Your task to perform on an android device: check google app version Image 0: 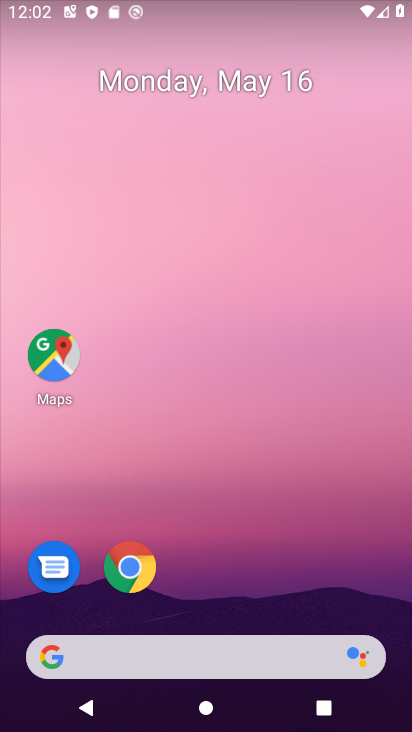
Step 0: drag from (275, 584) to (317, 121)
Your task to perform on an android device: check google app version Image 1: 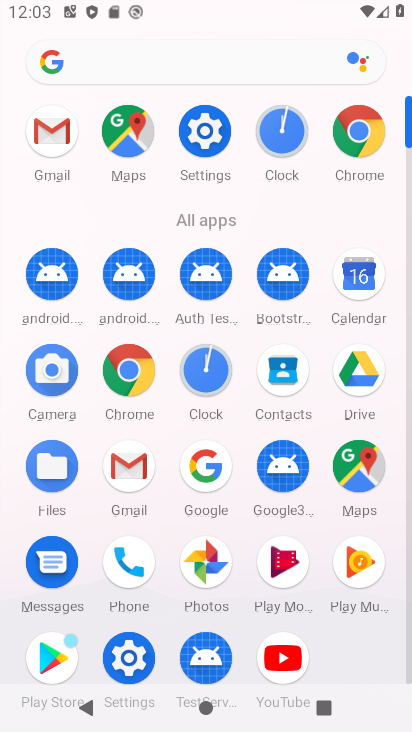
Step 1: click (201, 476)
Your task to perform on an android device: check google app version Image 2: 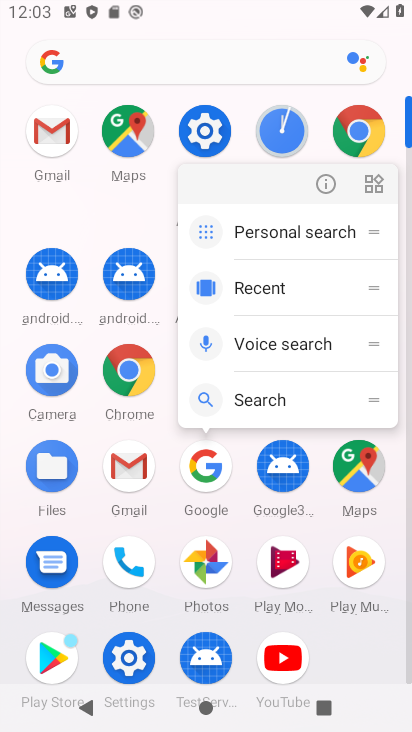
Step 2: click (323, 184)
Your task to perform on an android device: check google app version Image 3: 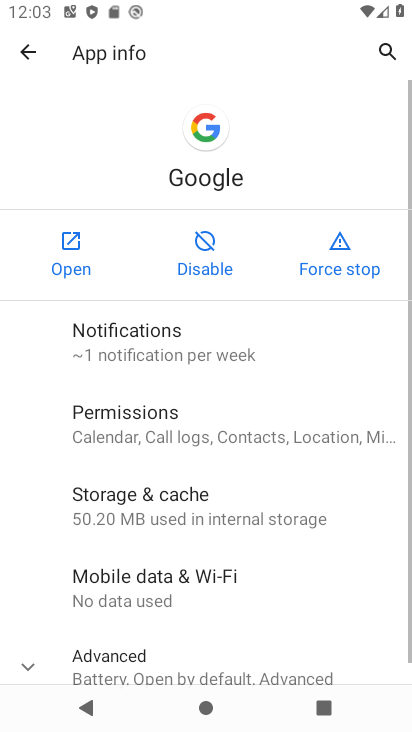
Step 3: drag from (223, 632) to (319, 105)
Your task to perform on an android device: check google app version Image 4: 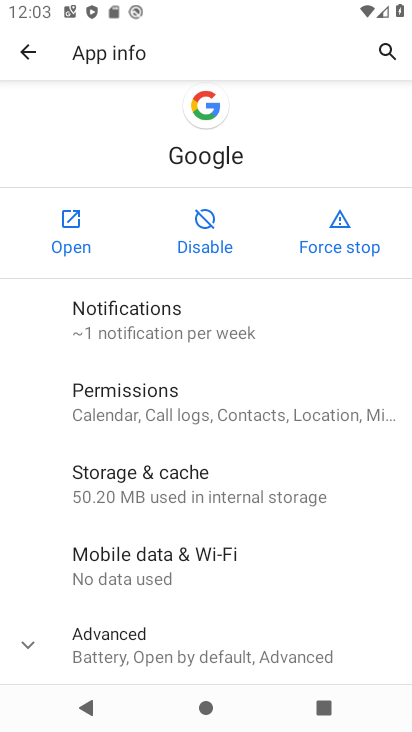
Step 4: click (99, 629)
Your task to perform on an android device: check google app version Image 5: 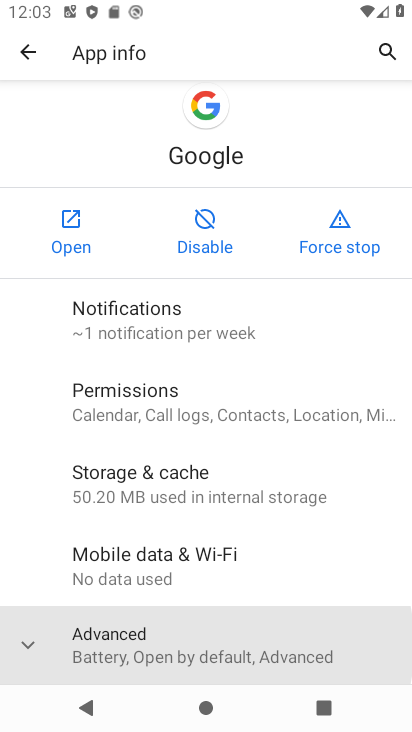
Step 5: click (99, 629)
Your task to perform on an android device: check google app version Image 6: 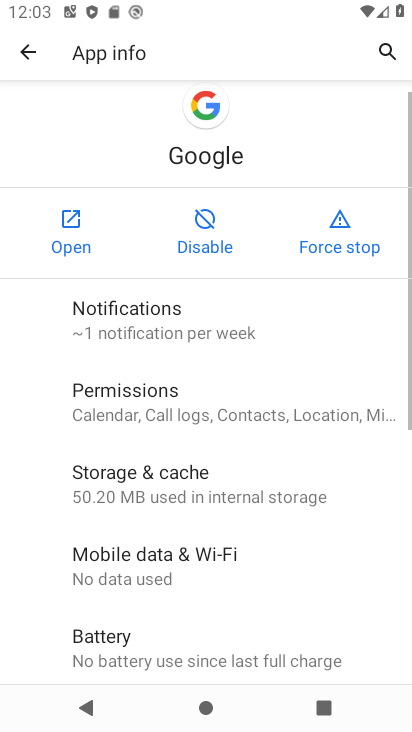
Step 6: task complete